Your task to perform on an android device: Go to accessibility settings Image 0: 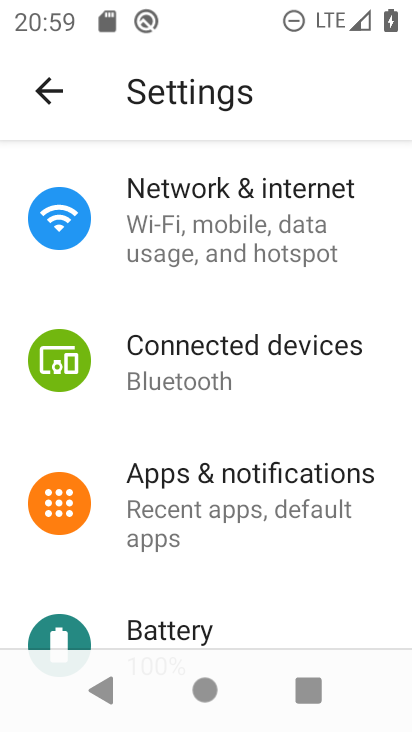
Step 0: drag from (98, 574) to (132, 165)
Your task to perform on an android device: Go to accessibility settings Image 1: 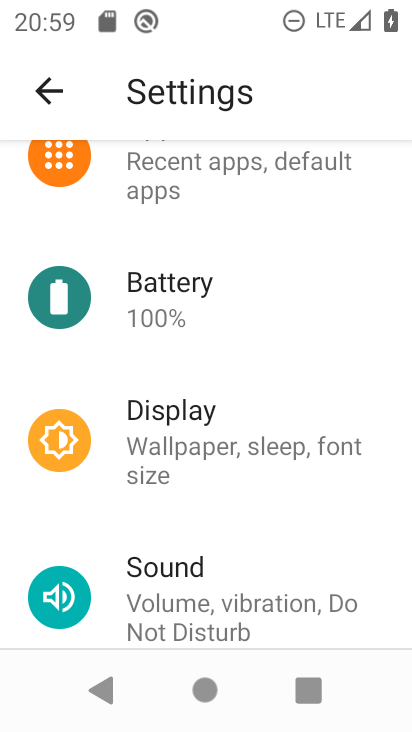
Step 1: drag from (77, 527) to (123, 188)
Your task to perform on an android device: Go to accessibility settings Image 2: 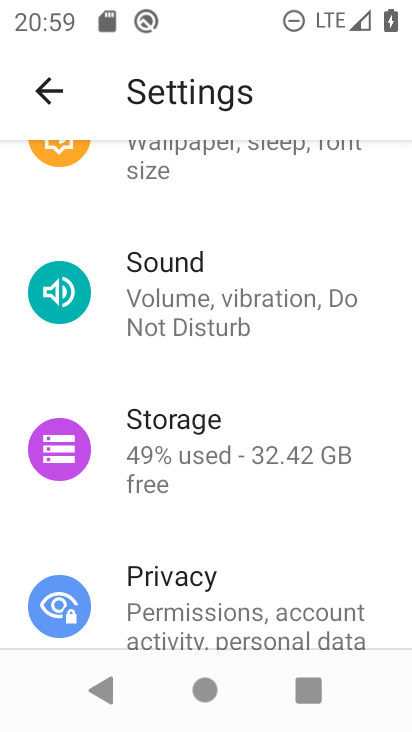
Step 2: drag from (77, 545) to (128, 162)
Your task to perform on an android device: Go to accessibility settings Image 3: 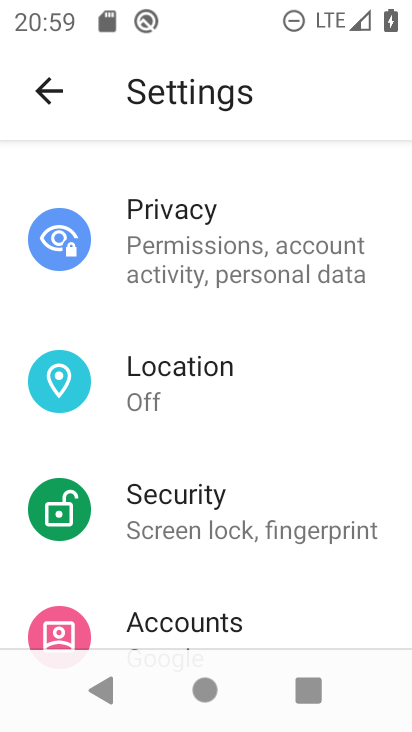
Step 3: drag from (105, 593) to (141, 268)
Your task to perform on an android device: Go to accessibility settings Image 4: 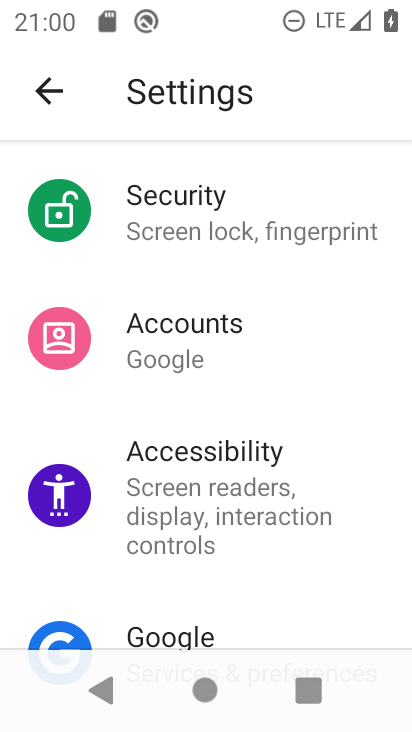
Step 4: click (223, 510)
Your task to perform on an android device: Go to accessibility settings Image 5: 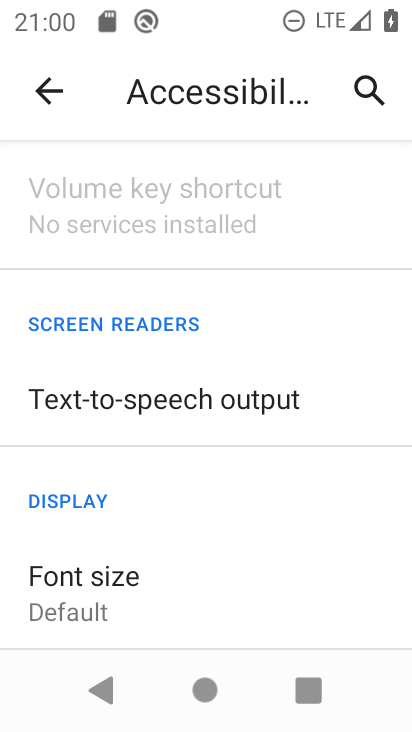
Step 5: task complete